Your task to perform on an android device: find which apps use the phone's location Image 0: 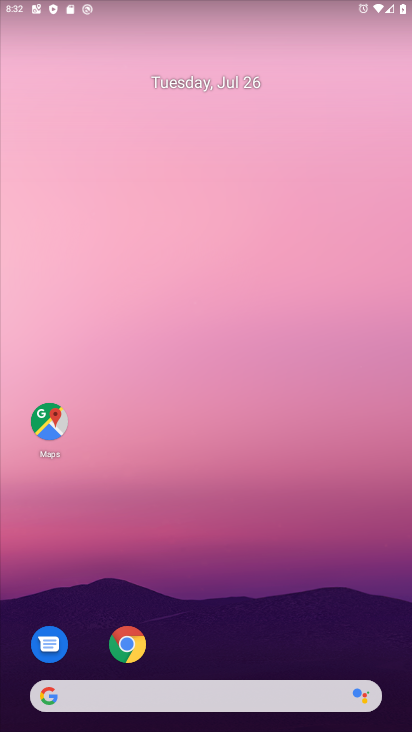
Step 0: drag from (202, 650) to (204, 241)
Your task to perform on an android device: find which apps use the phone's location Image 1: 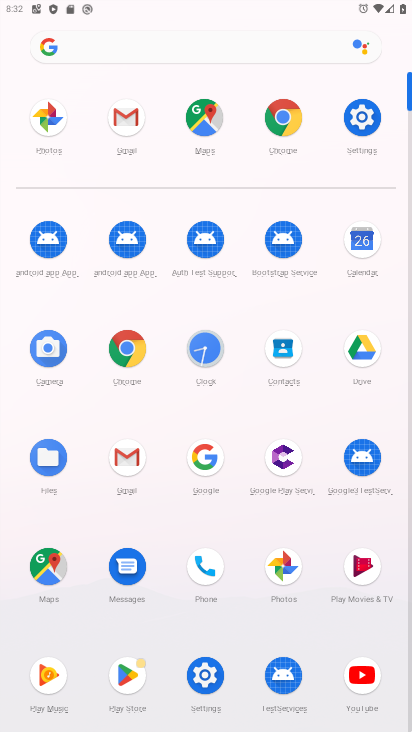
Step 1: click (361, 111)
Your task to perform on an android device: find which apps use the phone's location Image 2: 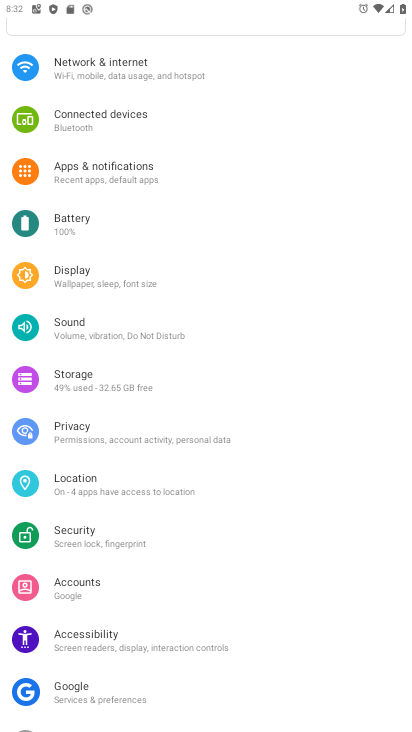
Step 2: click (109, 478)
Your task to perform on an android device: find which apps use the phone's location Image 3: 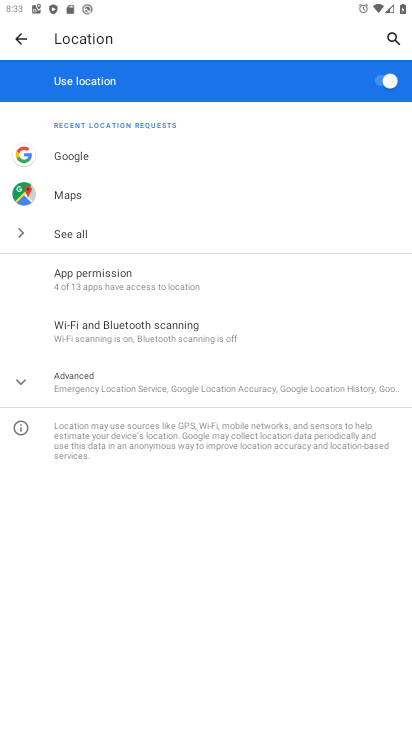
Step 3: task complete